Your task to perform on an android device: Go to privacy settings Image 0: 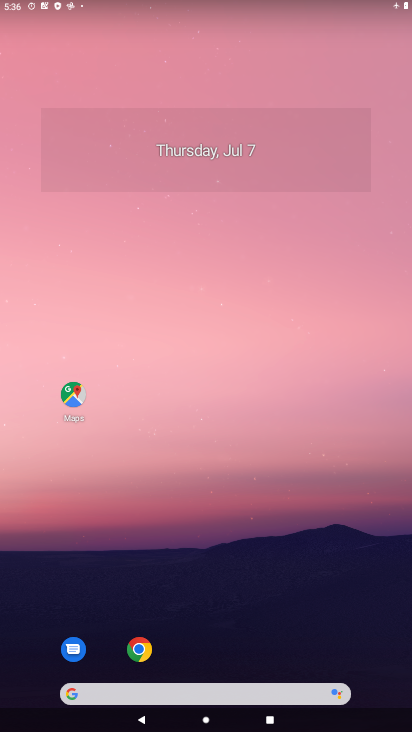
Step 0: drag from (369, 649) to (246, 8)
Your task to perform on an android device: Go to privacy settings Image 1: 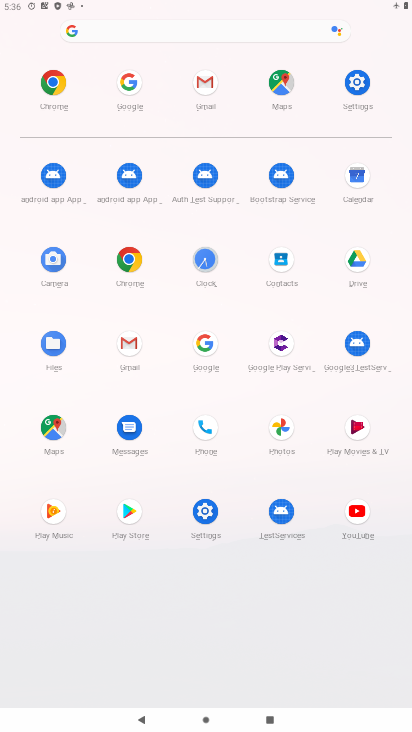
Step 1: click (370, 87)
Your task to perform on an android device: Go to privacy settings Image 2: 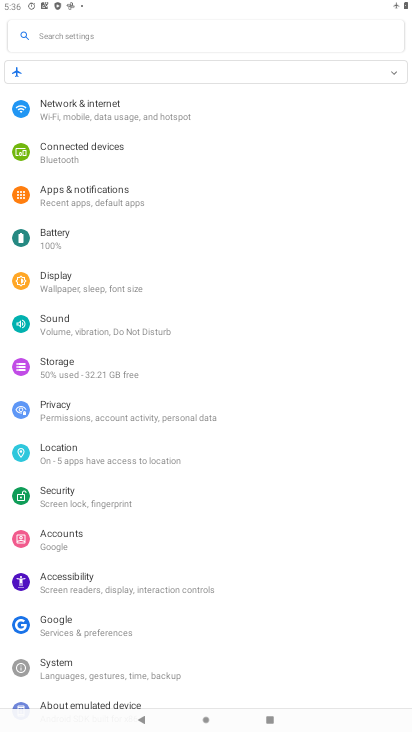
Step 2: click (59, 417)
Your task to perform on an android device: Go to privacy settings Image 3: 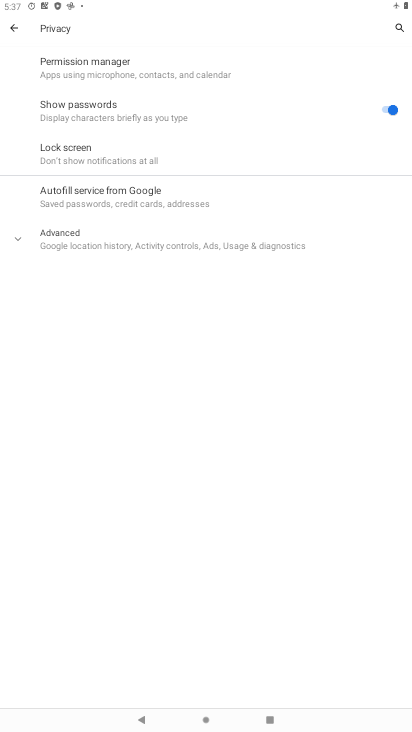
Step 3: task complete